Your task to perform on an android device: choose inbox layout in the gmail app Image 0: 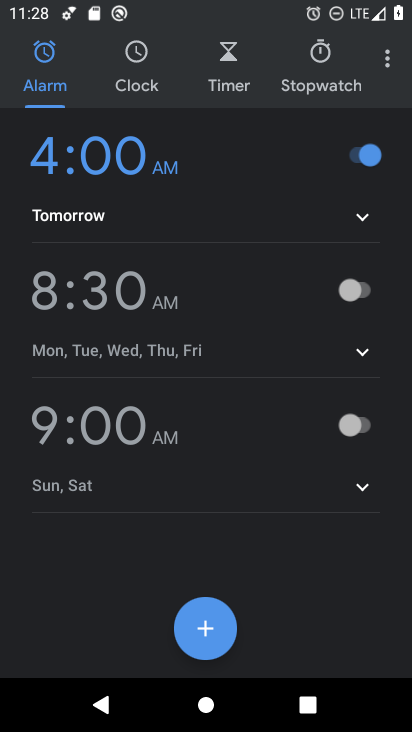
Step 0: press home button
Your task to perform on an android device: choose inbox layout in the gmail app Image 1: 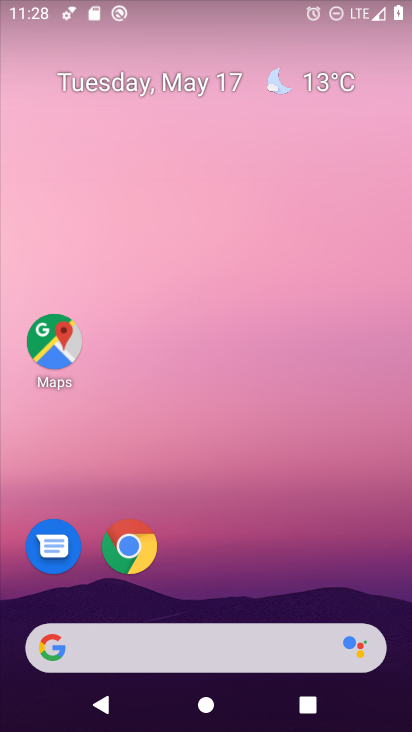
Step 1: drag from (260, 582) to (262, 0)
Your task to perform on an android device: choose inbox layout in the gmail app Image 2: 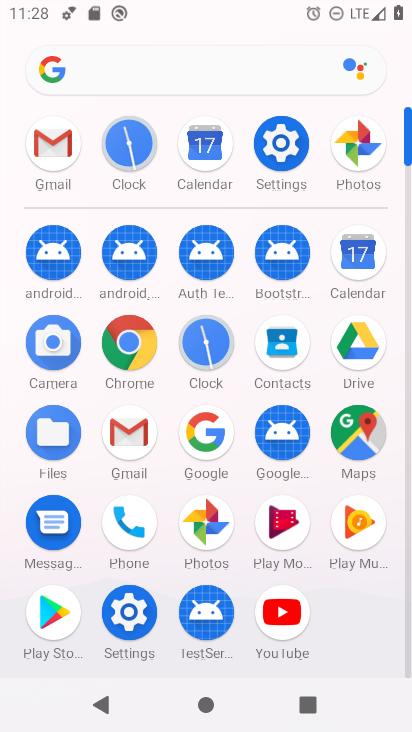
Step 2: click (42, 162)
Your task to perform on an android device: choose inbox layout in the gmail app Image 3: 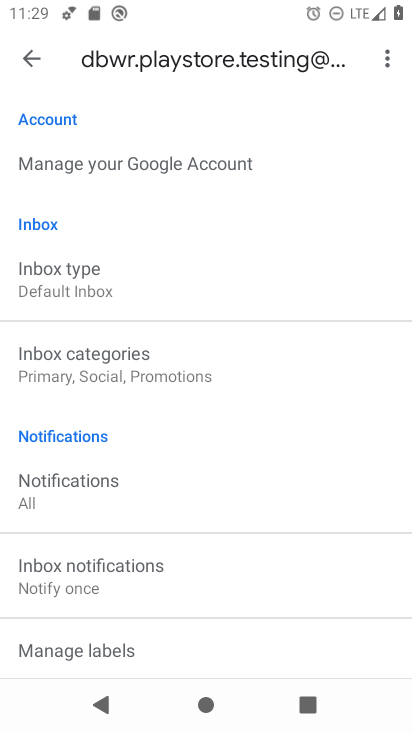
Step 3: click (71, 278)
Your task to perform on an android device: choose inbox layout in the gmail app Image 4: 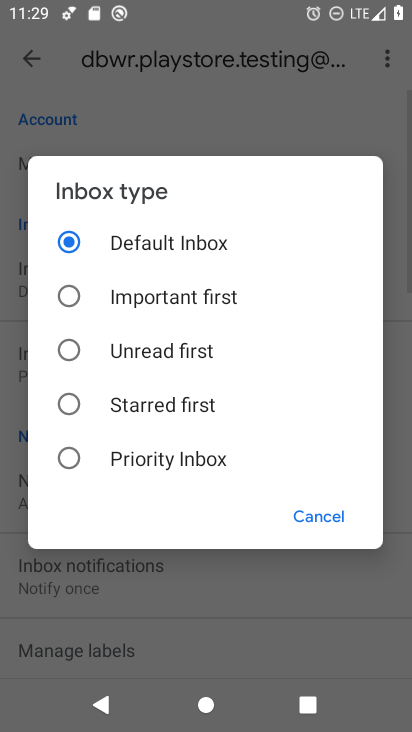
Step 4: click (63, 349)
Your task to perform on an android device: choose inbox layout in the gmail app Image 5: 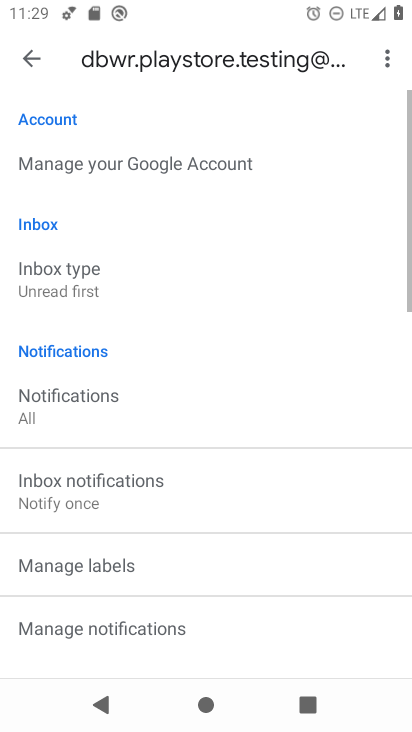
Step 5: task complete